Your task to perform on an android device: check google app version Image 0: 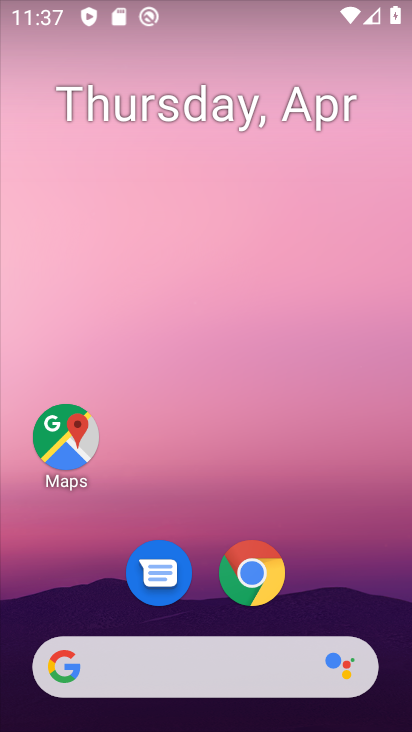
Step 0: drag from (363, 420) to (349, 105)
Your task to perform on an android device: check google app version Image 1: 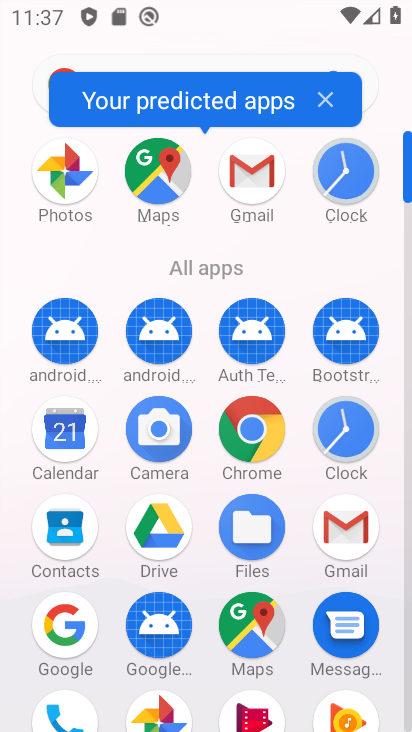
Step 1: click (51, 640)
Your task to perform on an android device: check google app version Image 2: 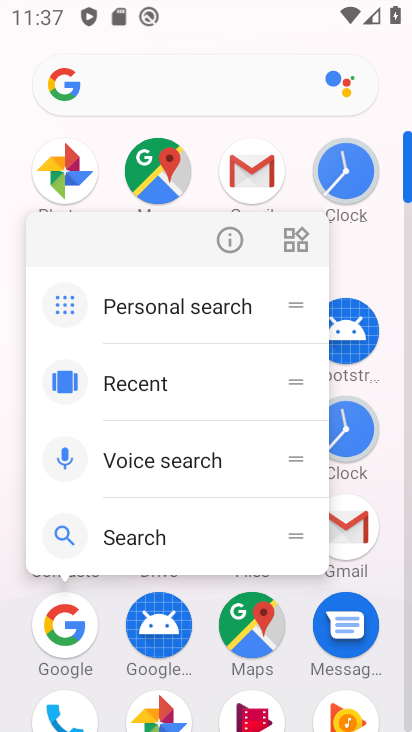
Step 2: click (62, 635)
Your task to perform on an android device: check google app version Image 3: 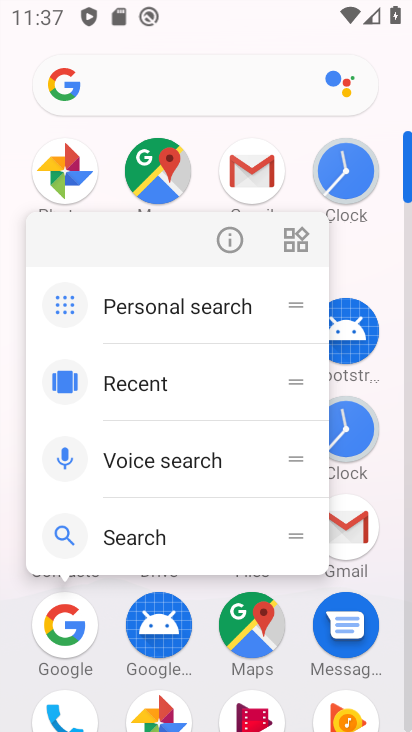
Step 3: click (68, 647)
Your task to perform on an android device: check google app version Image 4: 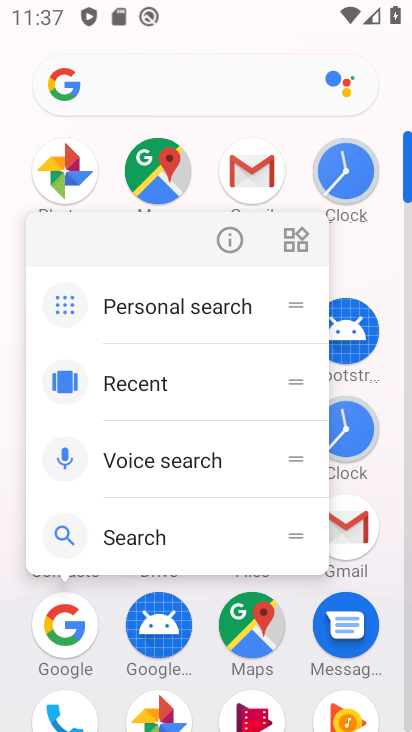
Step 4: click (47, 639)
Your task to perform on an android device: check google app version Image 5: 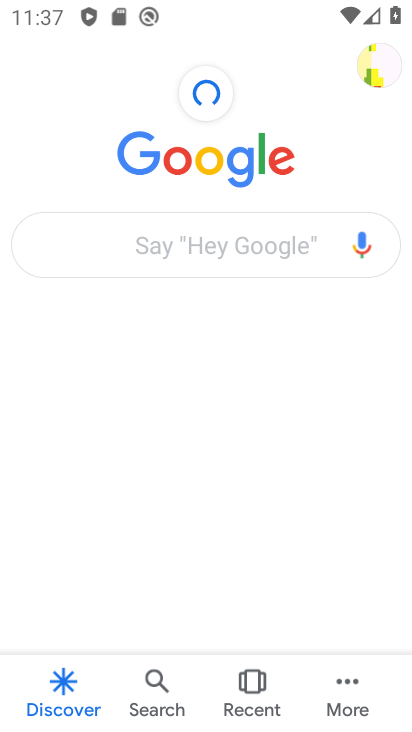
Step 5: click (347, 693)
Your task to perform on an android device: check google app version Image 6: 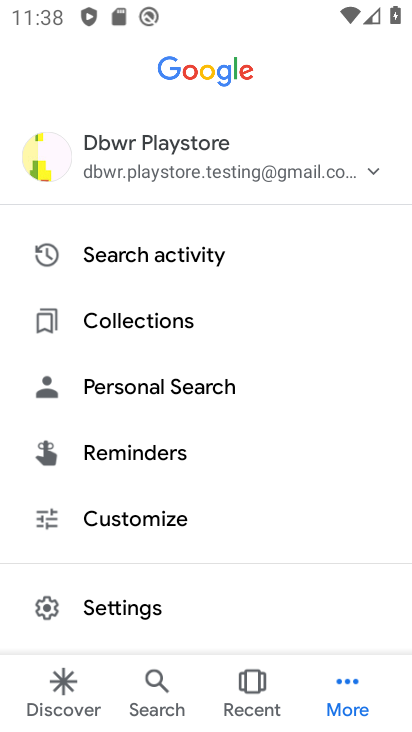
Step 6: click (108, 611)
Your task to perform on an android device: check google app version Image 7: 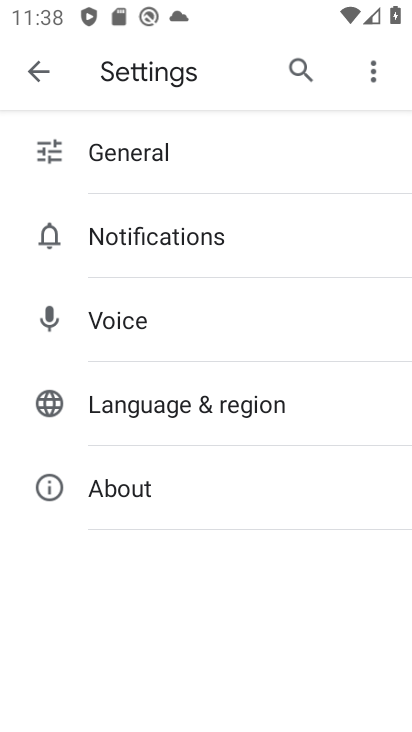
Step 7: click (160, 483)
Your task to perform on an android device: check google app version Image 8: 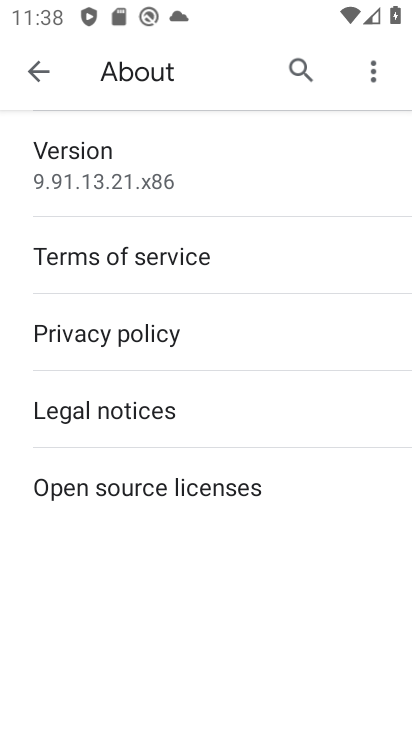
Step 8: task complete